Your task to perform on an android device: Open Chrome and go to the settings page Image 0: 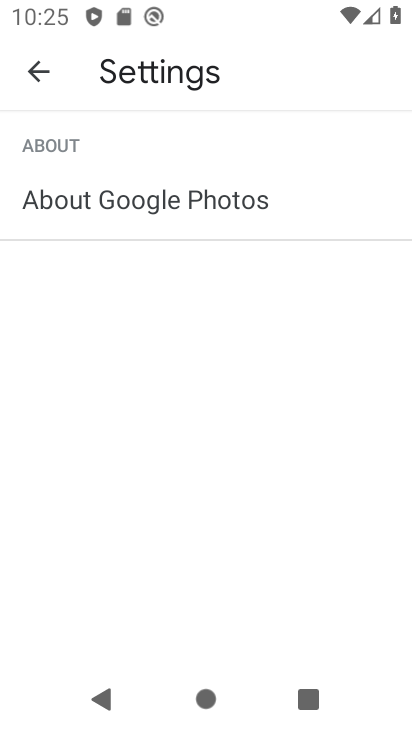
Step 0: press home button
Your task to perform on an android device: Open Chrome and go to the settings page Image 1: 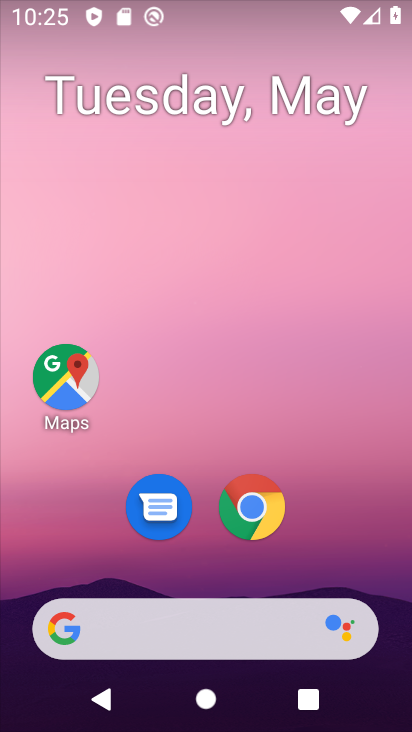
Step 1: drag from (355, 542) to (370, 170)
Your task to perform on an android device: Open Chrome and go to the settings page Image 2: 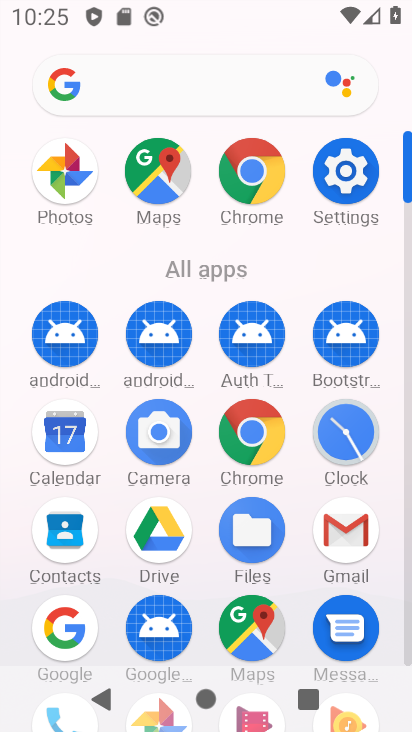
Step 2: click (271, 443)
Your task to perform on an android device: Open Chrome and go to the settings page Image 3: 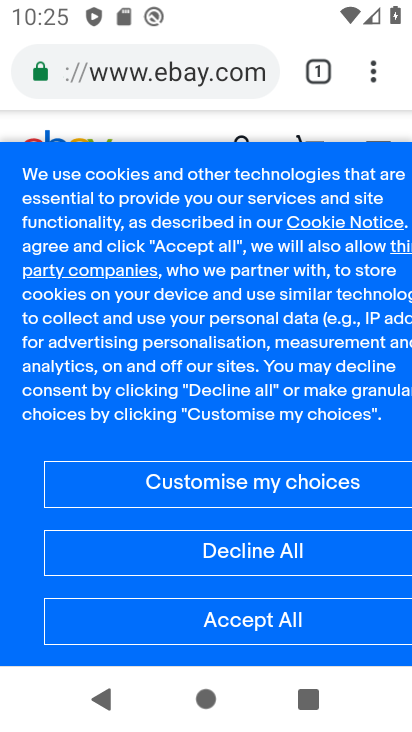
Step 3: click (375, 79)
Your task to perform on an android device: Open Chrome and go to the settings page Image 4: 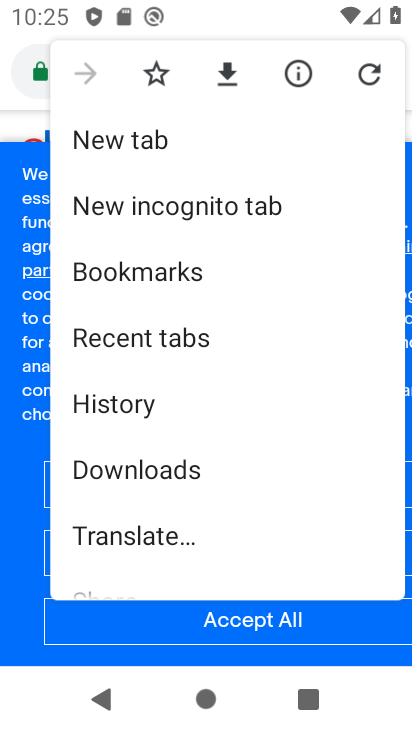
Step 4: drag from (315, 505) to (328, 365)
Your task to perform on an android device: Open Chrome and go to the settings page Image 5: 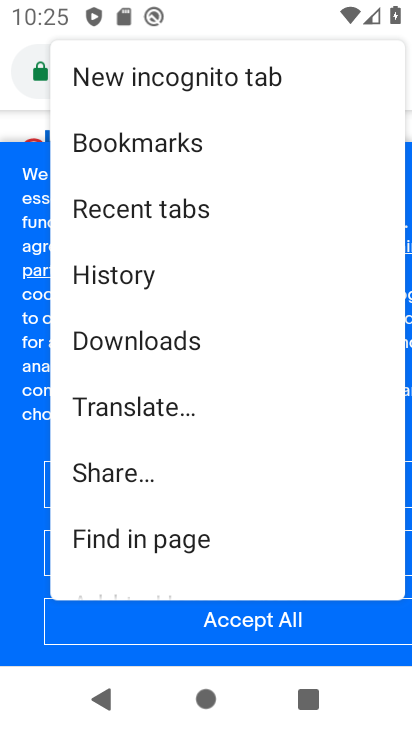
Step 5: drag from (300, 528) to (321, 420)
Your task to perform on an android device: Open Chrome and go to the settings page Image 6: 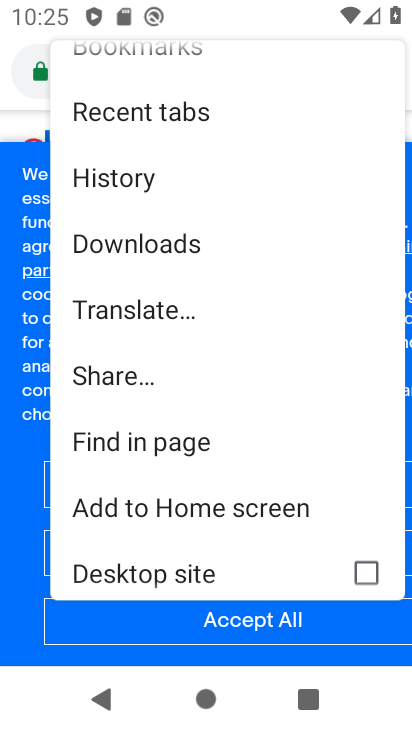
Step 6: drag from (299, 556) to (311, 379)
Your task to perform on an android device: Open Chrome and go to the settings page Image 7: 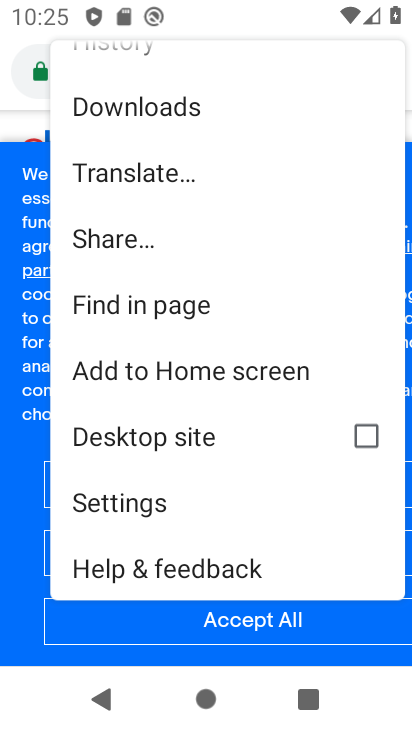
Step 7: click (152, 518)
Your task to perform on an android device: Open Chrome and go to the settings page Image 8: 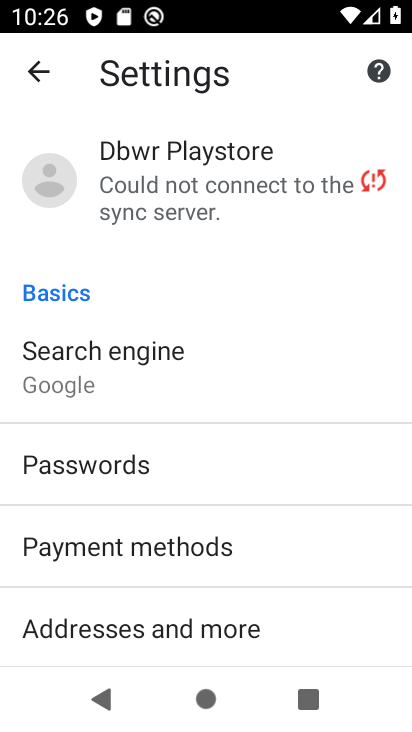
Step 8: task complete